Your task to perform on an android device: delete location history Image 0: 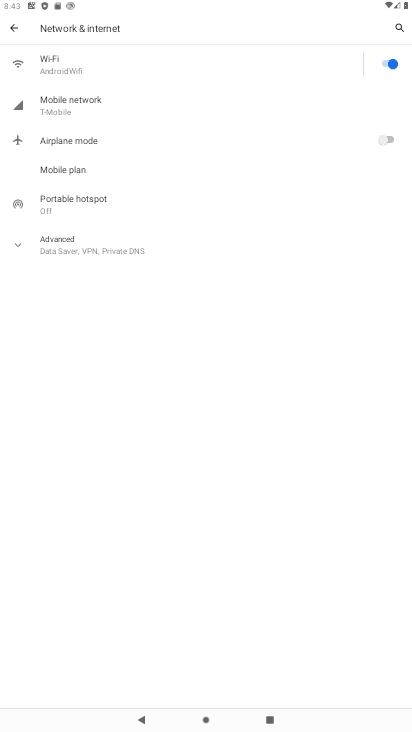
Step 0: press home button
Your task to perform on an android device: delete location history Image 1: 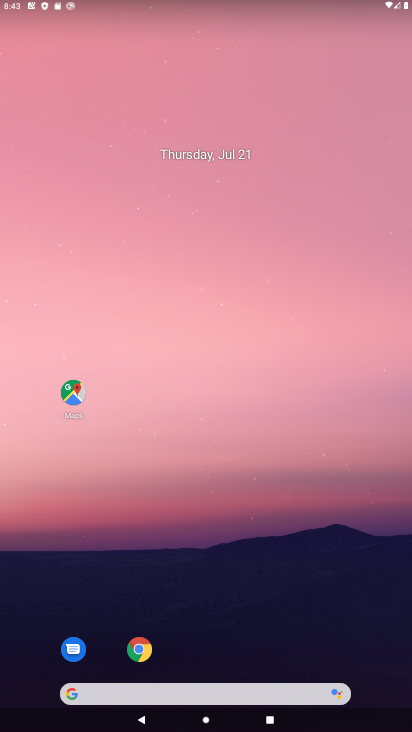
Step 1: drag from (280, 665) to (253, 76)
Your task to perform on an android device: delete location history Image 2: 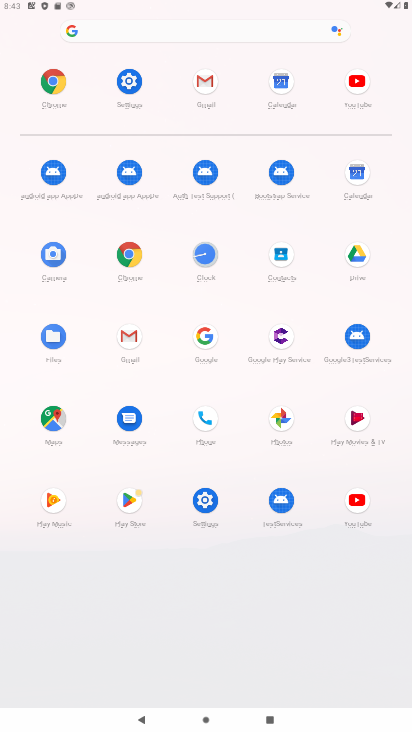
Step 2: click (211, 507)
Your task to perform on an android device: delete location history Image 3: 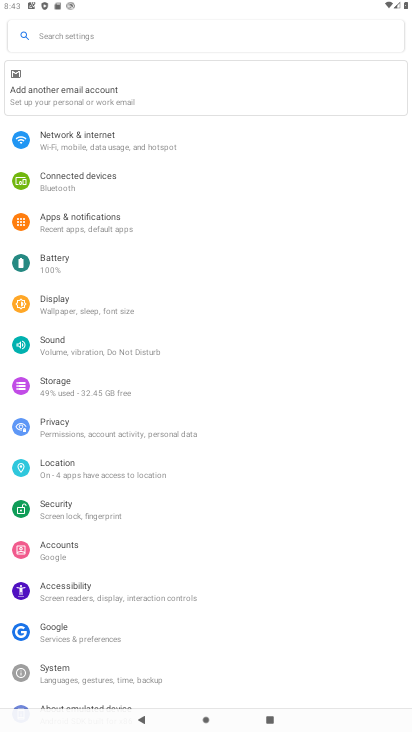
Step 3: press home button
Your task to perform on an android device: delete location history Image 4: 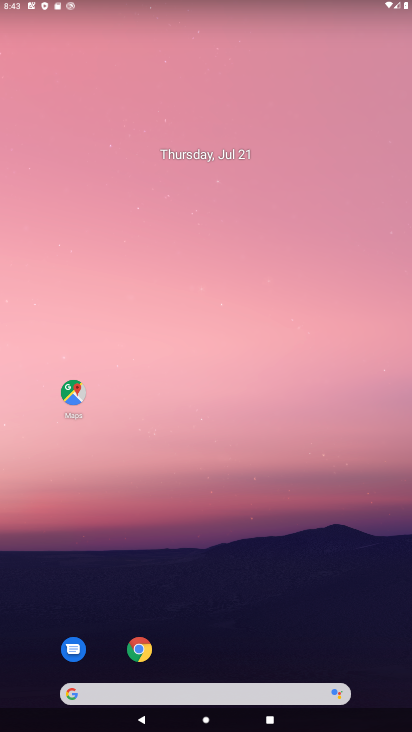
Step 4: drag from (210, 664) to (411, 486)
Your task to perform on an android device: delete location history Image 5: 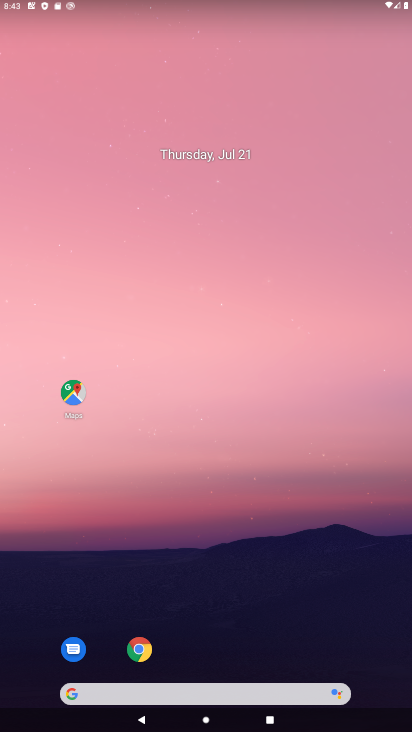
Step 5: drag from (206, 690) to (214, 0)
Your task to perform on an android device: delete location history Image 6: 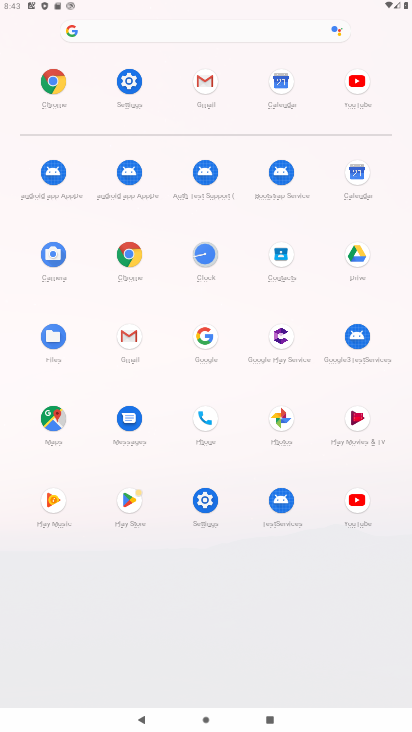
Step 6: click (60, 438)
Your task to perform on an android device: delete location history Image 7: 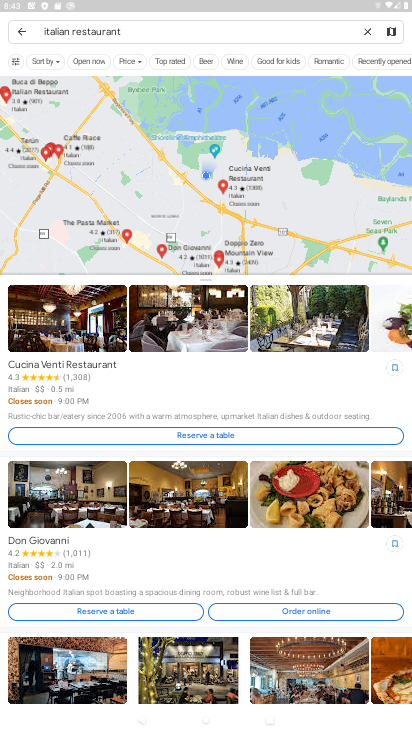
Step 7: click (24, 33)
Your task to perform on an android device: delete location history Image 8: 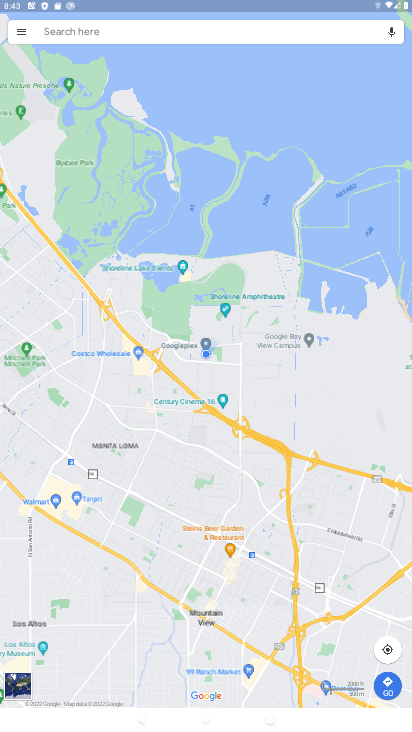
Step 8: click (24, 33)
Your task to perform on an android device: delete location history Image 9: 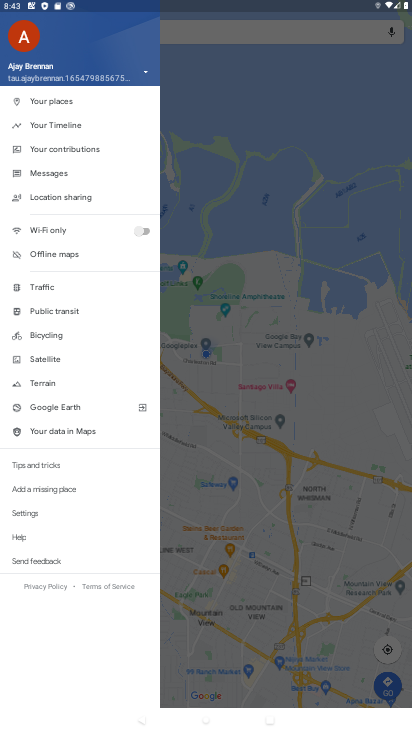
Step 9: click (55, 127)
Your task to perform on an android device: delete location history Image 10: 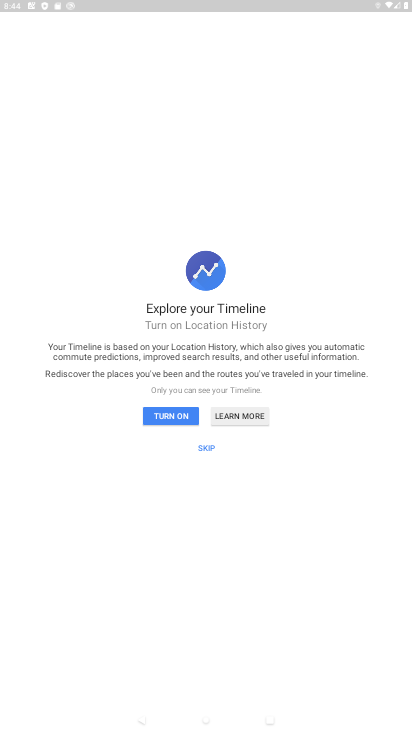
Step 10: click (207, 443)
Your task to perform on an android device: delete location history Image 11: 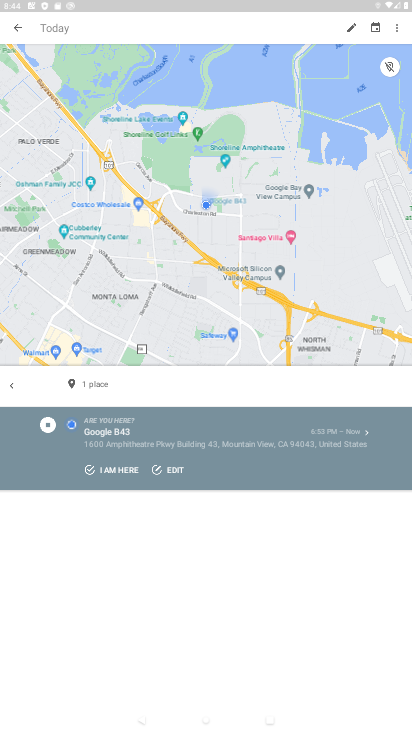
Step 11: click (395, 29)
Your task to perform on an android device: delete location history Image 12: 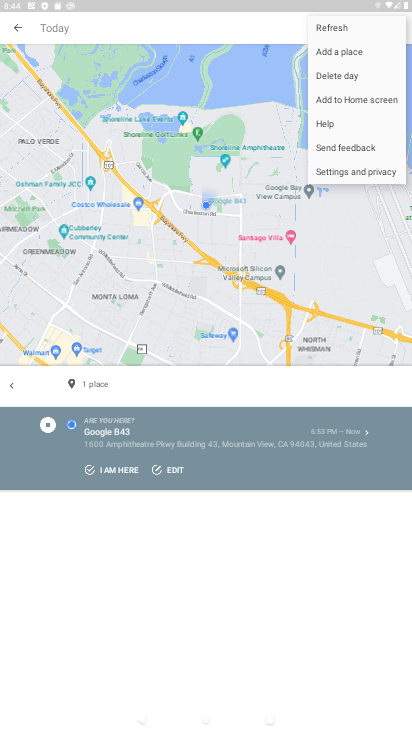
Step 12: click (347, 167)
Your task to perform on an android device: delete location history Image 13: 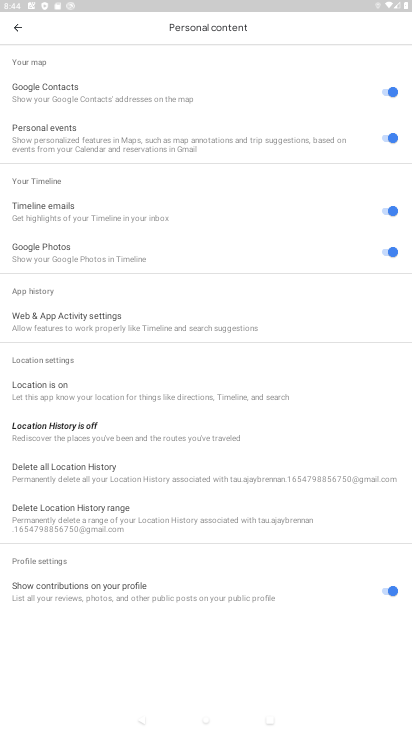
Step 13: click (117, 473)
Your task to perform on an android device: delete location history Image 14: 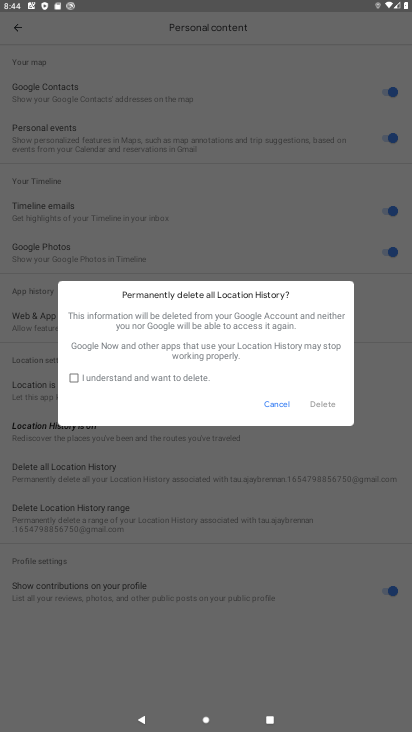
Step 14: click (175, 375)
Your task to perform on an android device: delete location history Image 15: 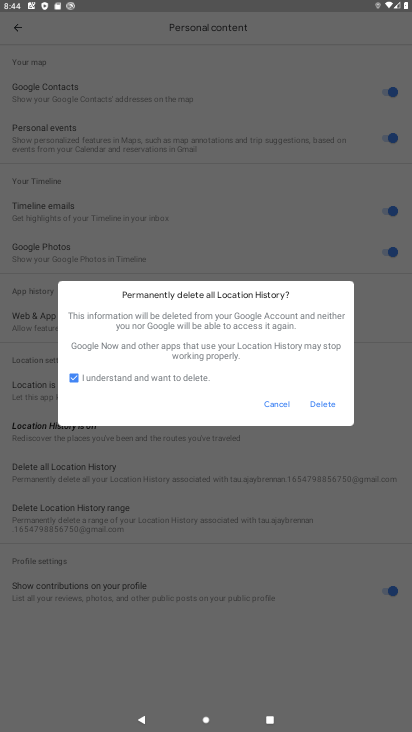
Step 15: click (329, 404)
Your task to perform on an android device: delete location history Image 16: 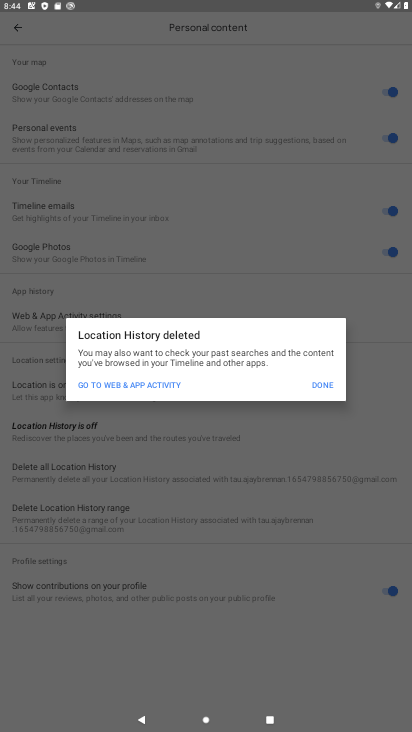
Step 16: click (328, 383)
Your task to perform on an android device: delete location history Image 17: 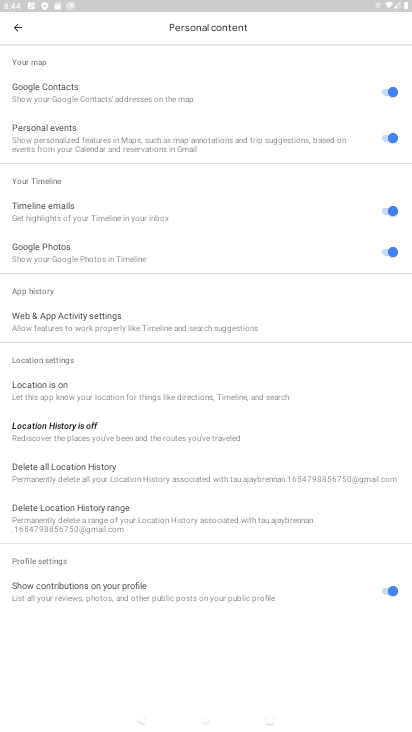
Step 17: task complete